Your task to perform on an android device: stop showing notifications on the lock screen Image 0: 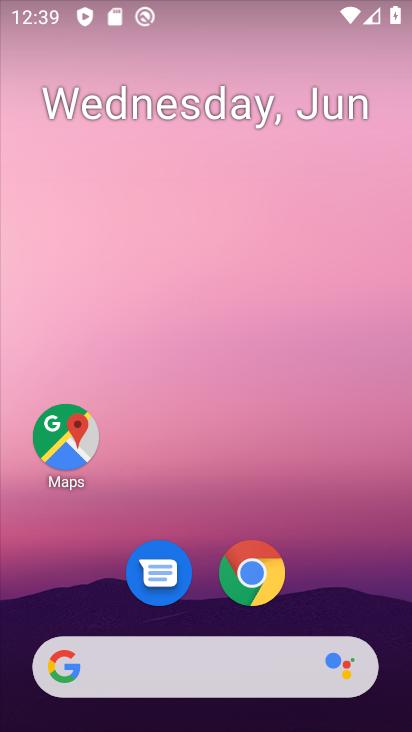
Step 0: drag from (340, 568) to (288, 73)
Your task to perform on an android device: stop showing notifications on the lock screen Image 1: 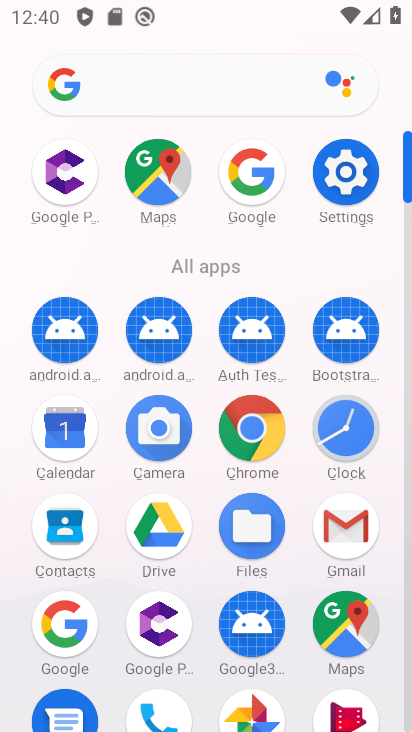
Step 1: drag from (291, 568) to (298, 220)
Your task to perform on an android device: stop showing notifications on the lock screen Image 2: 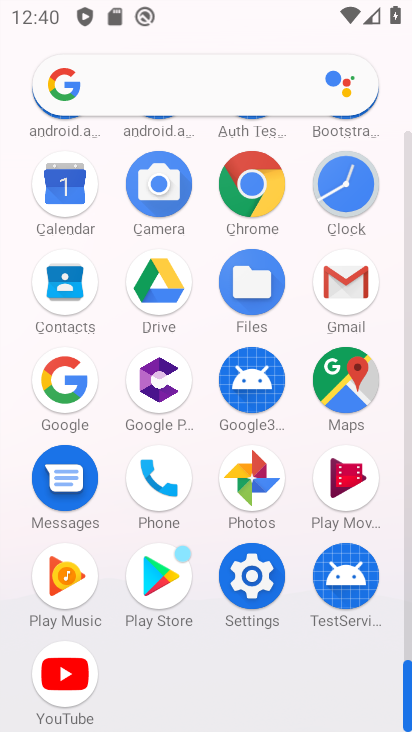
Step 2: drag from (259, 678) to (246, 310)
Your task to perform on an android device: stop showing notifications on the lock screen Image 3: 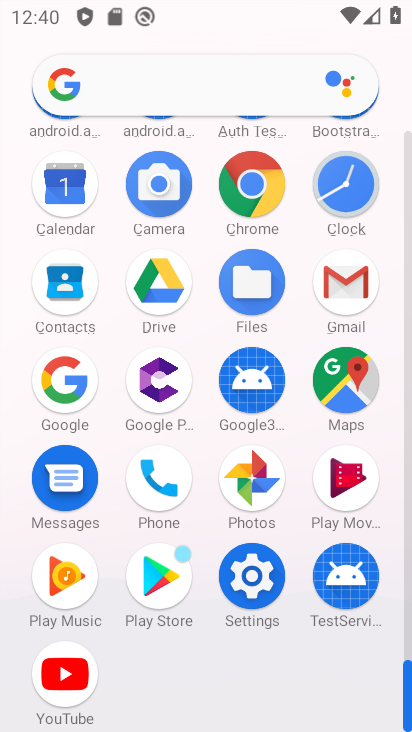
Step 3: click (254, 578)
Your task to perform on an android device: stop showing notifications on the lock screen Image 4: 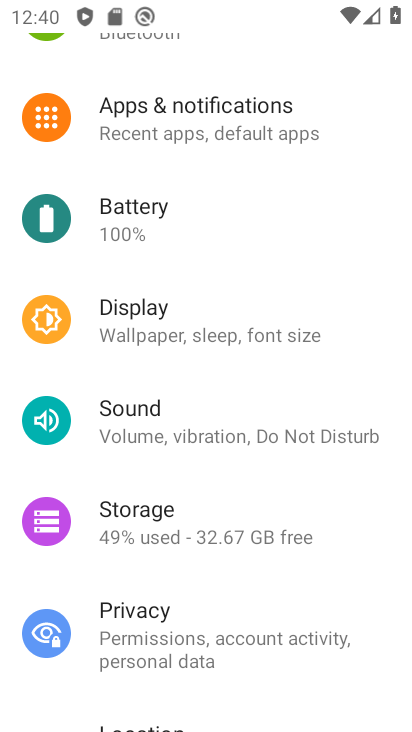
Step 4: drag from (259, 312) to (272, 516)
Your task to perform on an android device: stop showing notifications on the lock screen Image 5: 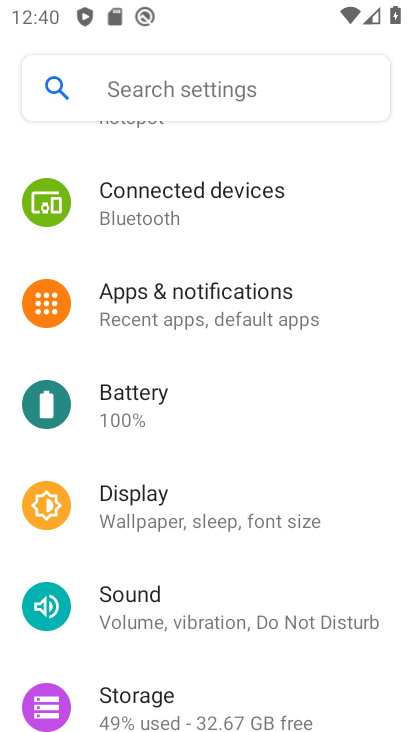
Step 5: drag from (254, 646) to (299, 359)
Your task to perform on an android device: stop showing notifications on the lock screen Image 6: 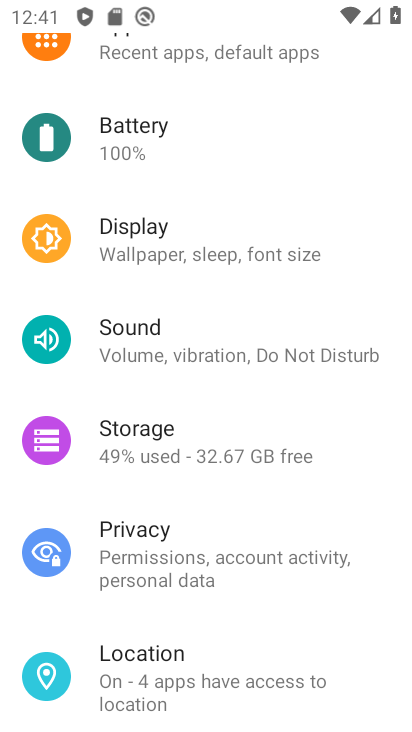
Step 6: drag from (218, 240) to (244, 470)
Your task to perform on an android device: stop showing notifications on the lock screen Image 7: 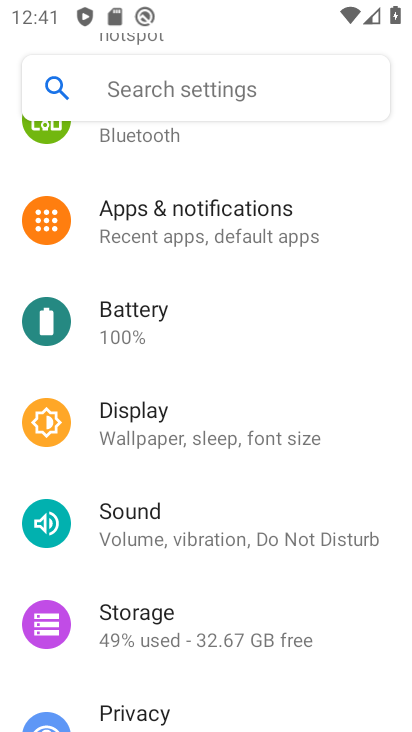
Step 7: click (248, 211)
Your task to perform on an android device: stop showing notifications on the lock screen Image 8: 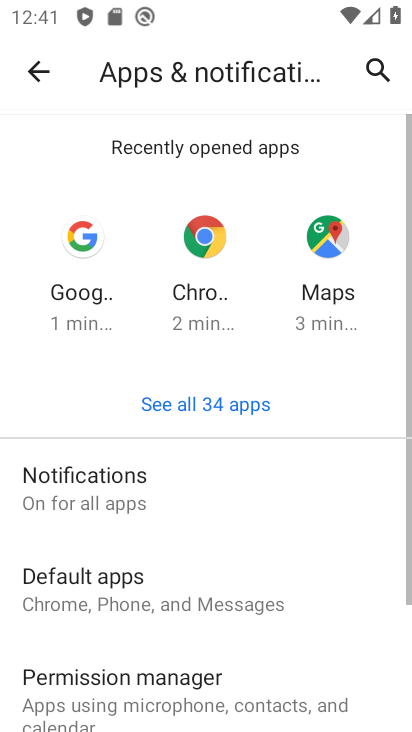
Step 8: drag from (251, 555) to (229, 297)
Your task to perform on an android device: stop showing notifications on the lock screen Image 9: 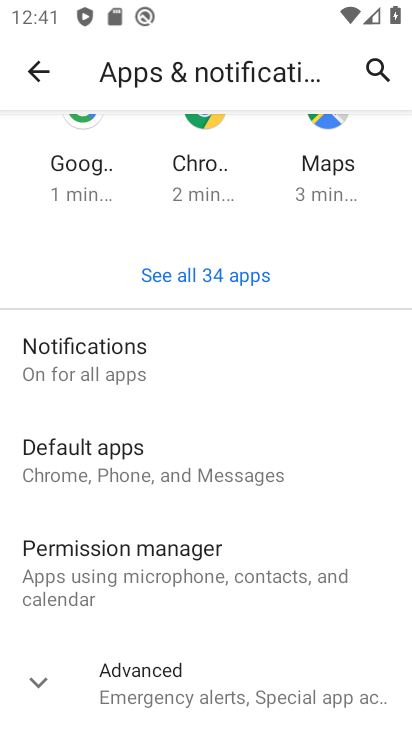
Step 9: click (115, 349)
Your task to perform on an android device: stop showing notifications on the lock screen Image 10: 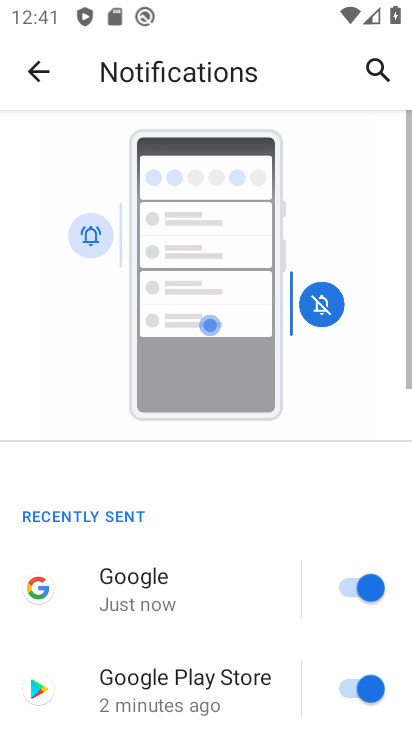
Step 10: drag from (242, 633) to (289, 238)
Your task to perform on an android device: stop showing notifications on the lock screen Image 11: 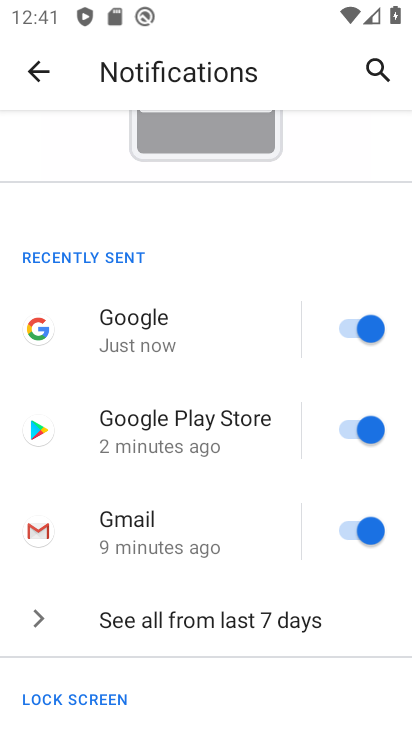
Step 11: drag from (233, 663) to (274, 290)
Your task to perform on an android device: stop showing notifications on the lock screen Image 12: 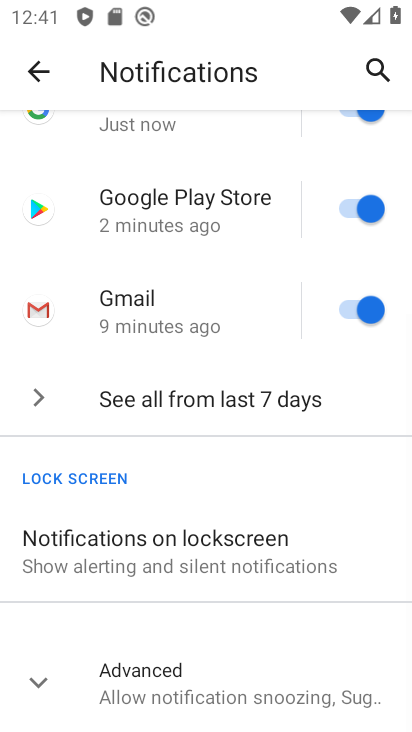
Step 12: click (228, 546)
Your task to perform on an android device: stop showing notifications on the lock screen Image 13: 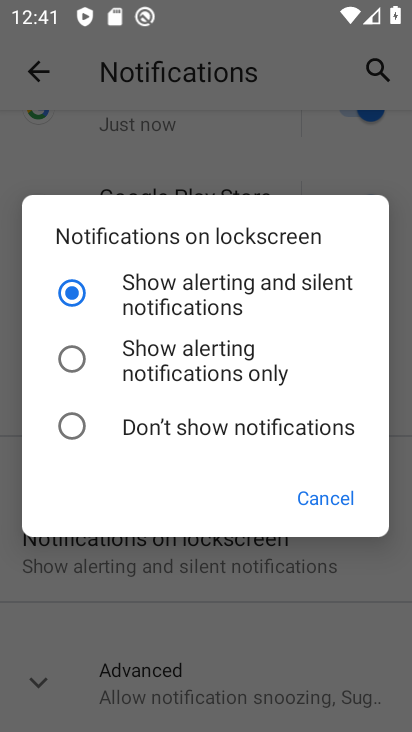
Step 13: click (81, 426)
Your task to perform on an android device: stop showing notifications on the lock screen Image 14: 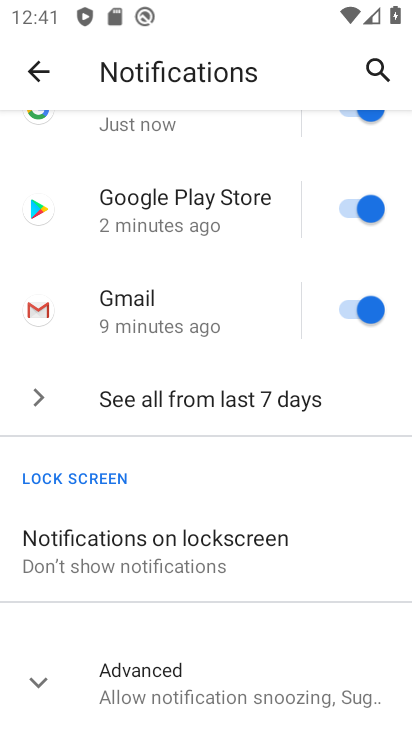
Step 14: task complete